Your task to perform on an android device: choose inbox layout in the gmail app Image 0: 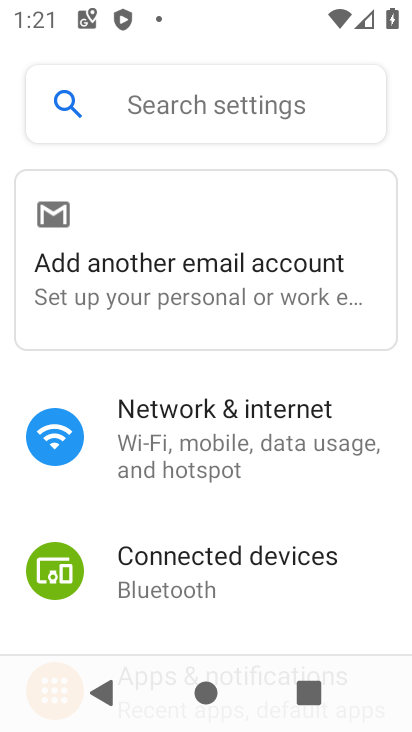
Step 0: press home button
Your task to perform on an android device: choose inbox layout in the gmail app Image 1: 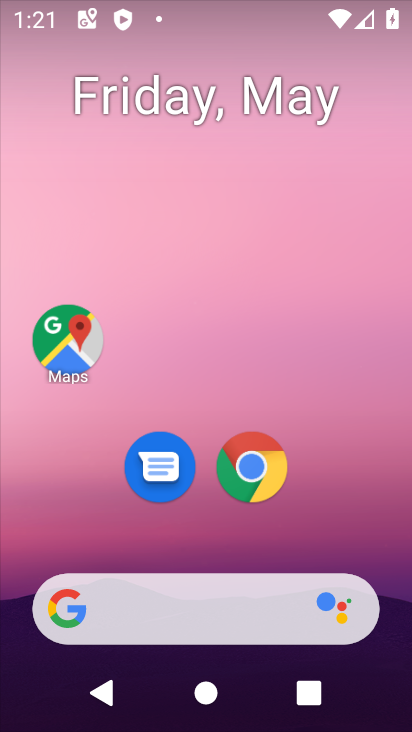
Step 1: drag from (311, 520) to (307, 188)
Your task to perform on an android device: choose inbox layout in the gmail app Image 2: 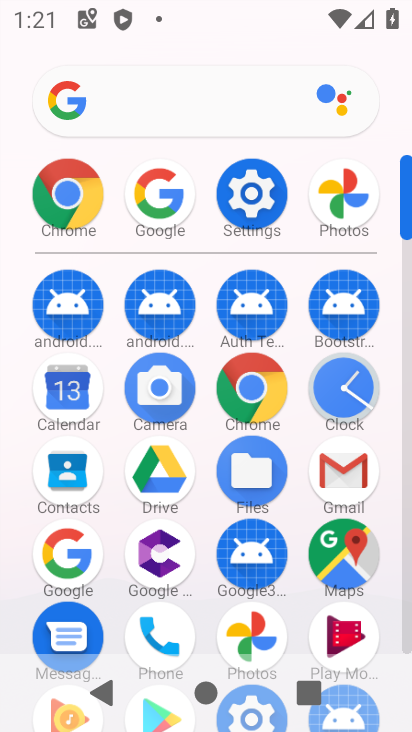
Step 2: click (354, 470)
Your task to perform on an android device: choose inbox layout in the gmail app Image 3: 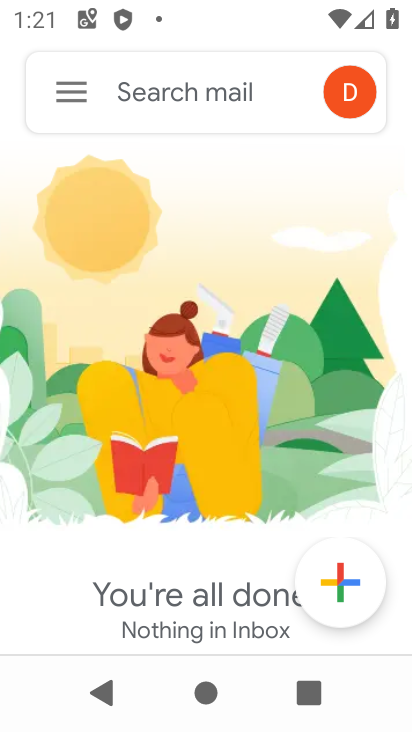
Step 3: click (65, 89)
Your task to perform on an android device: choose inbox layout in the gmail app Image 4: 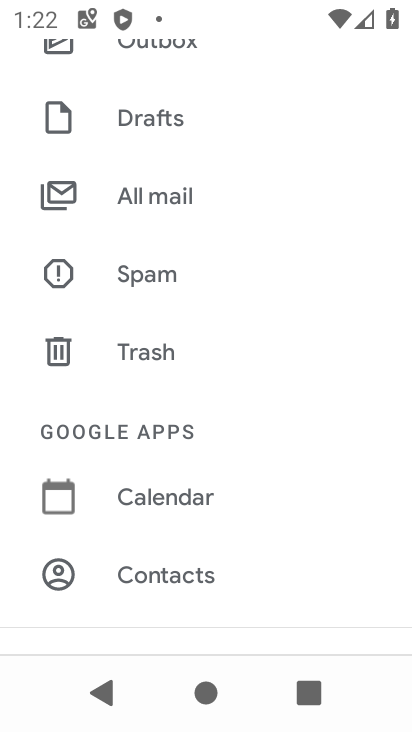
Step 4: drag from (130, 529) to (153, 307)
Your task to perform on an android device: choose inbox layout in the gmail app Image 5: 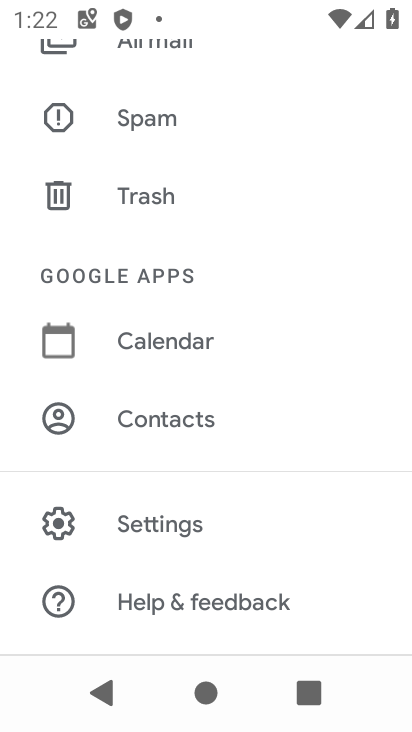
Step 5: click (143, 513)
Your task to perform on an android device: choose inbox layout in the gmail app Image 6: 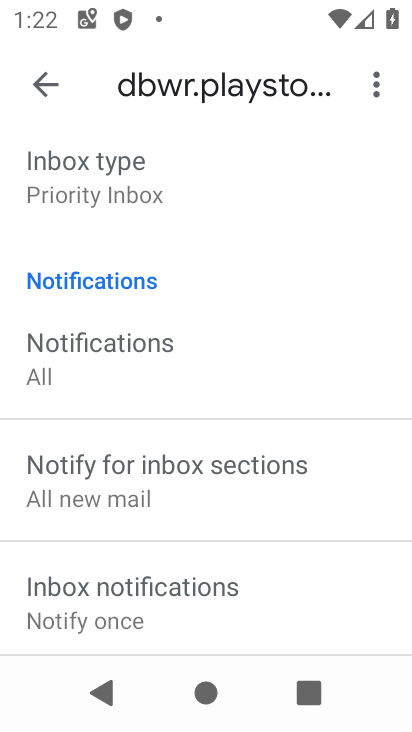
Step 6: click (112, 171)
Your task to perform on an android device: choose inbox layout in the gmail app Image 7: 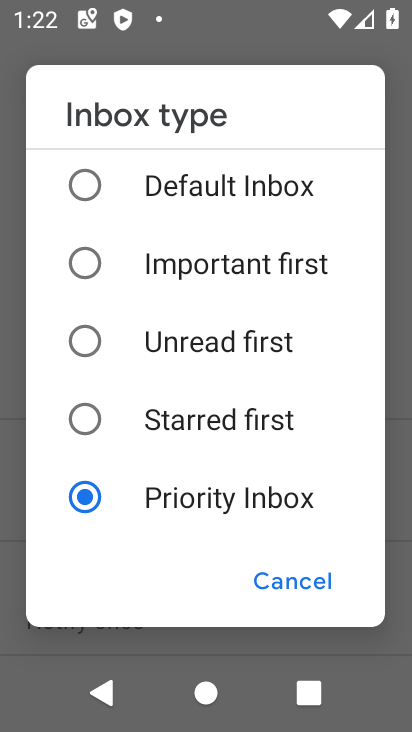
Step 7: click (143, 191)
Your task to perform on an android device: choose inbox layout in the gmail app Image 8: 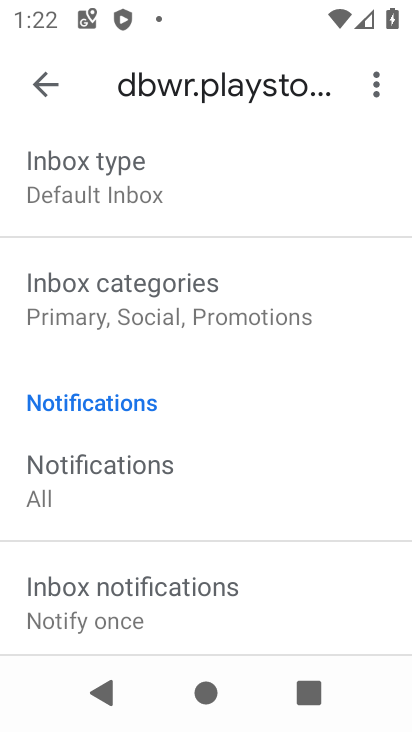
Step 8: click (143, 190)
Your task to perform on an android device: choose inbox layout in the gmail app Image 9: 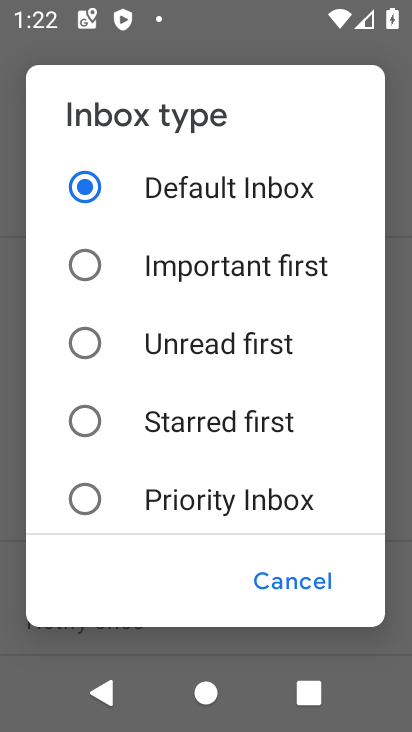
Step 9: click (143, 190)
Your task to perform on an android device: choose inbox layout in the gmail app Image 10: 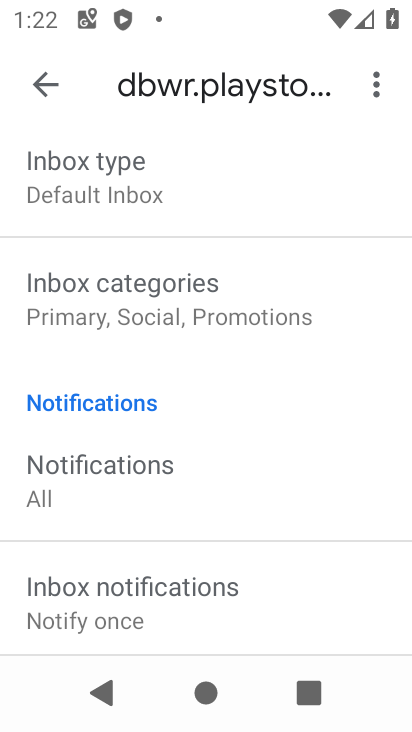
Step 10: task complete